Your task to perform on an android device: delete location history Image 0: 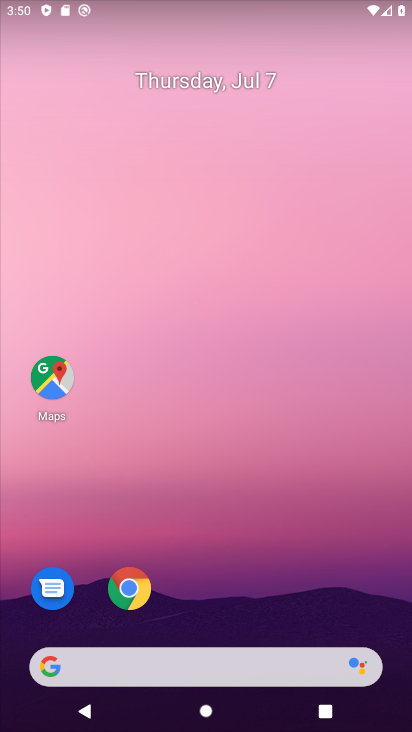
Step 0: press home button
Your task to perform on an android device: delete location history Image 1: 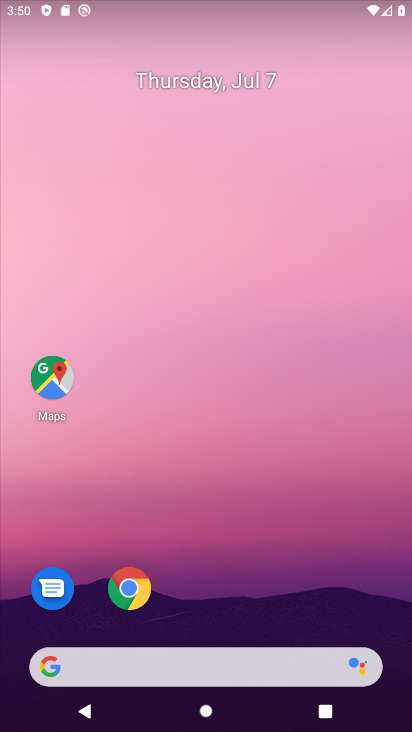
Step 1: drag from (187, 622) to (101, 10)
Your task to perform on an android device: delete location history Image 2: 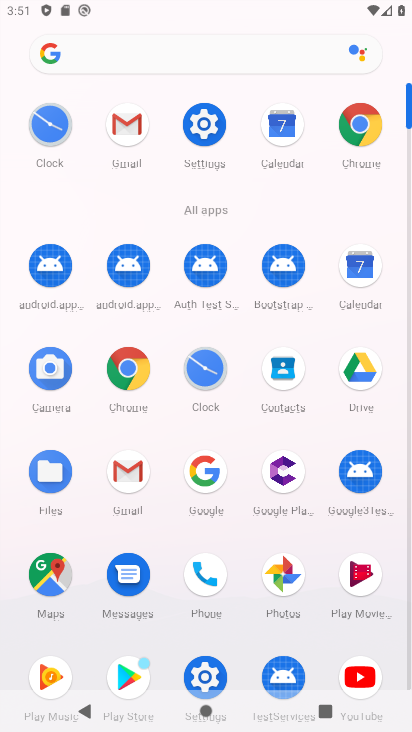
Step 2: click (34, 567)
Your task to perform on an android device: delete location history Image 3: 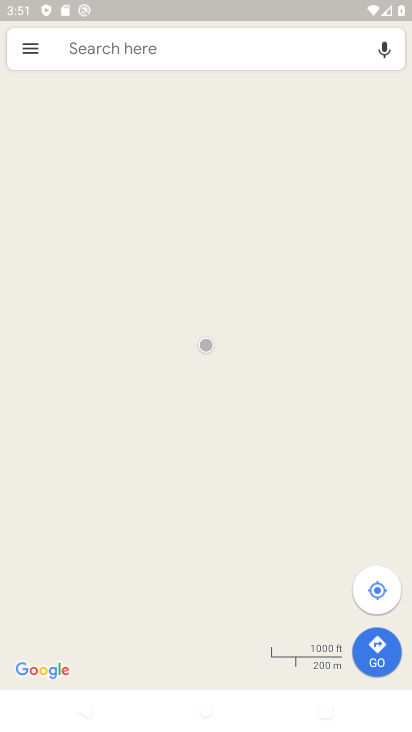
Step 3: click (17, 49)
Your task to perform on an android device: delete location history Image 4: 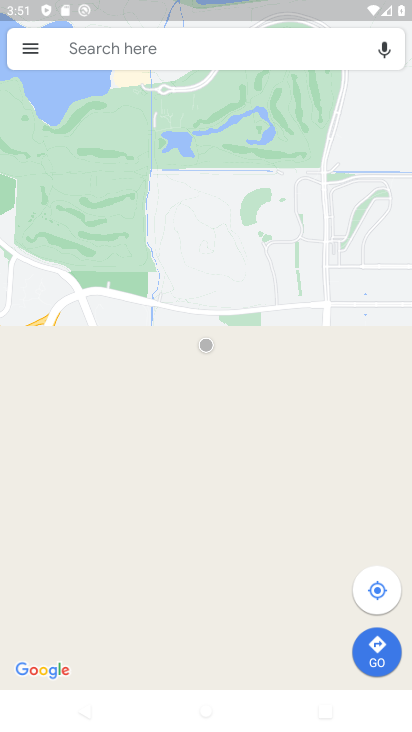
Step 4: click (34, 48)
Your task to perform on an android device: delete location history Image 5: 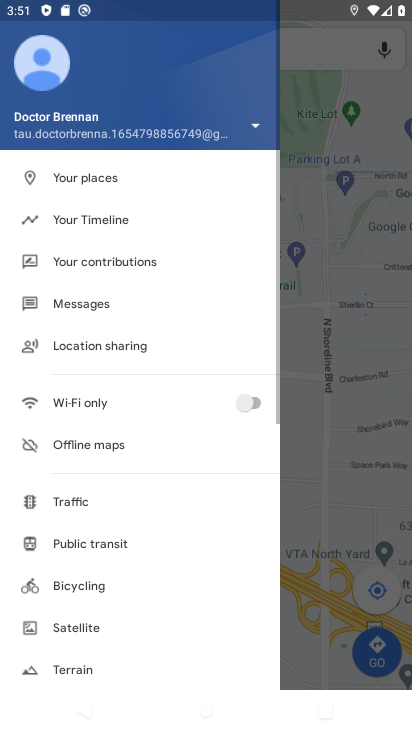
Step 5: click (78, 213)
Your task to perform on an android device: delete location history Image 6: 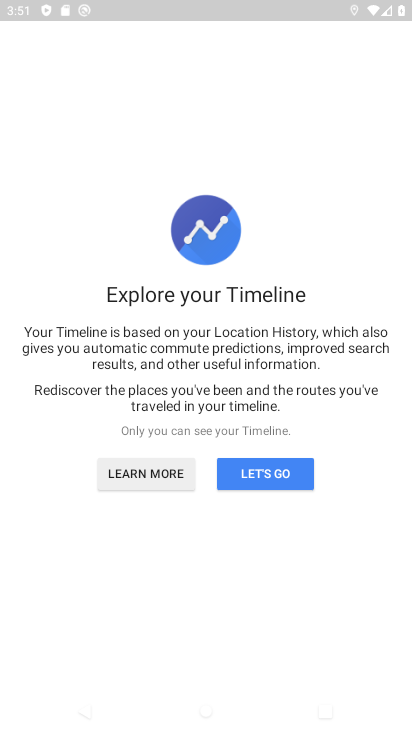
Step 6: click (279, 474)
Your task to perform on an android device: delete location history Image 7: 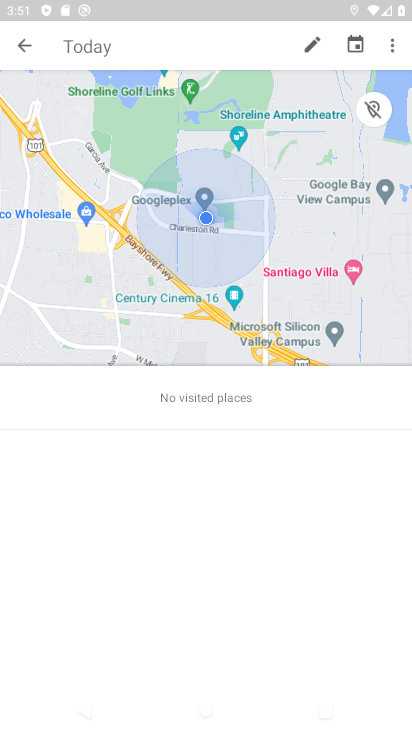
Step 7: click (389, 43)
Your task to perform on an android device: delete location history Image 8: 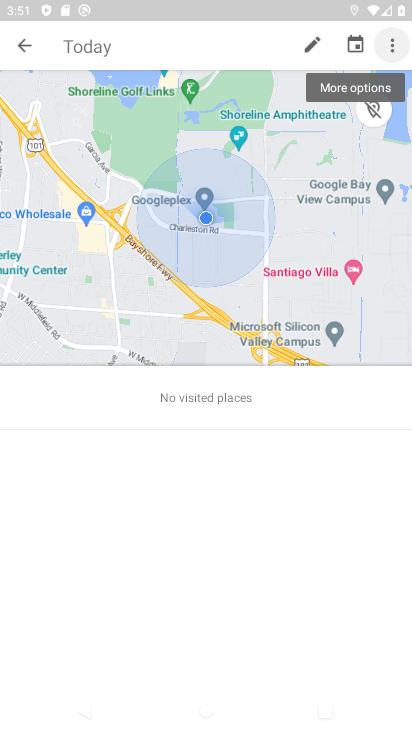
Step 8: click (389, 43)
Your task to perform on an android device: delete location history Image 9: 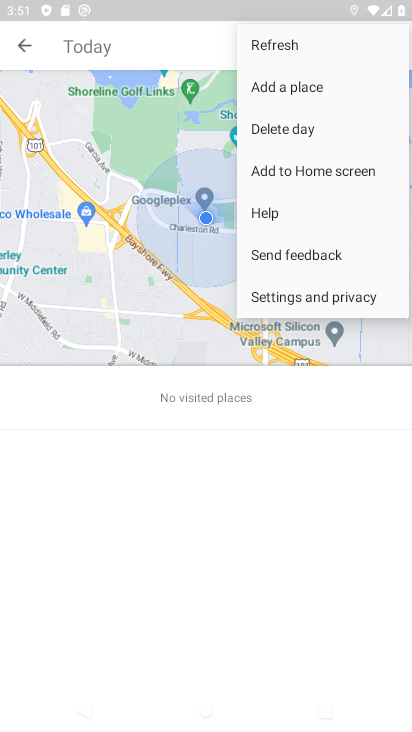
Step 9: click (309, 293)
Your task to perform on an android device: delete location history Image 10: 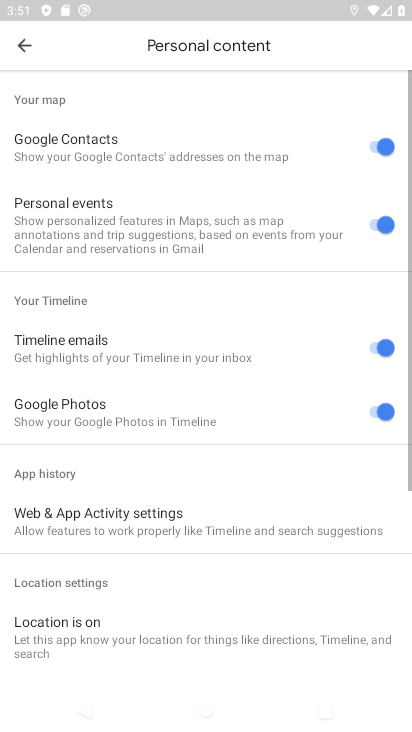
Step 10: drag from (297, 614) to (164, 0)
Your task to perform on an android device: delete location history Image 11: 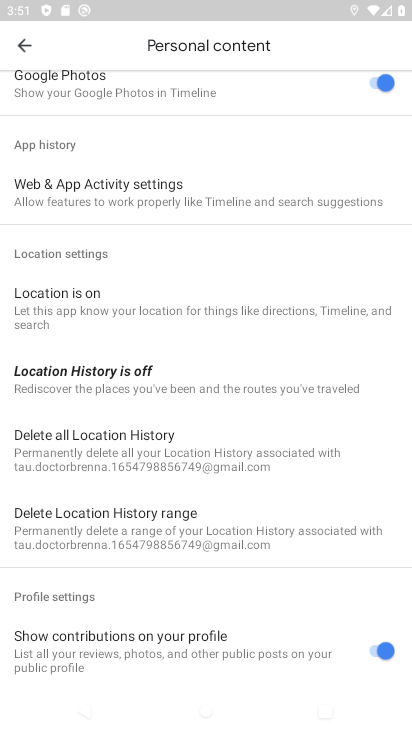
Step 11: click (105, 447)
Your task to perform on an android device: delete location history Image 12: 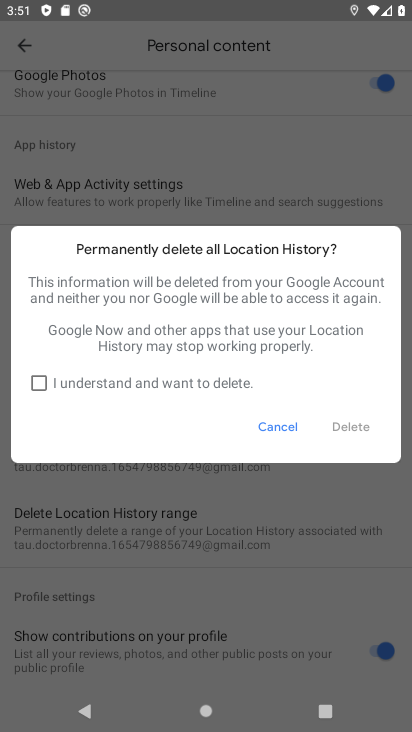
Step 12: click (39, 384)
Your task to perform on an android device: delete location history Image 13: 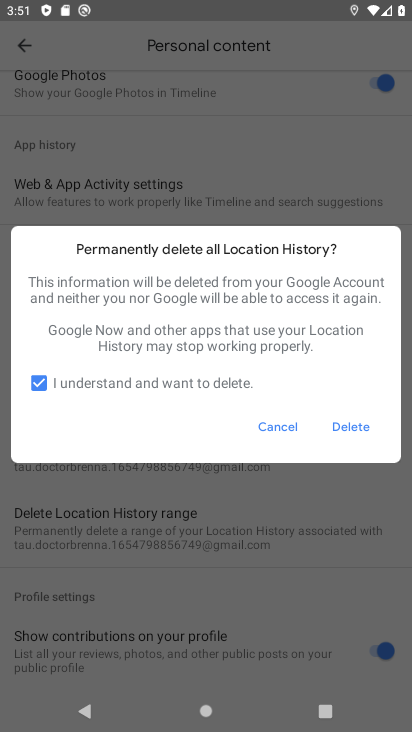
Step 13: click (350, 419)
Your task to perform on an android device: delete location history Image 14: 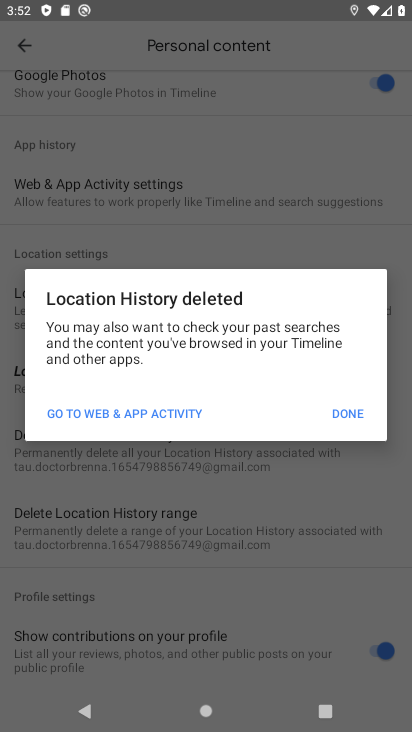
Step 14: click (339, 417)
Your task to perform on an android device: delete location history Image 15: 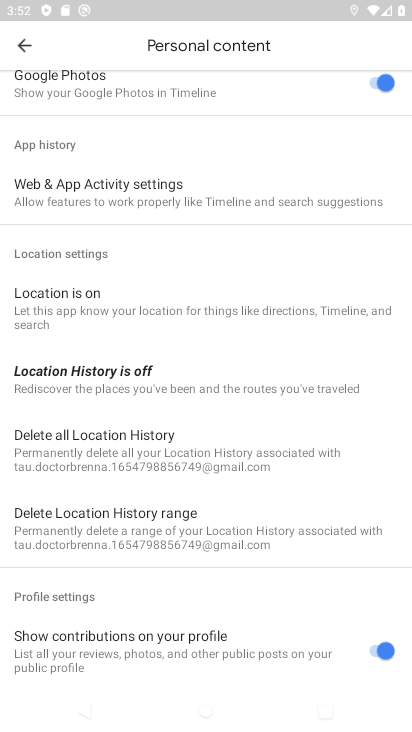
Step 15: task complete